Your task to perform on an android device: Open ESPN.com Image 0: 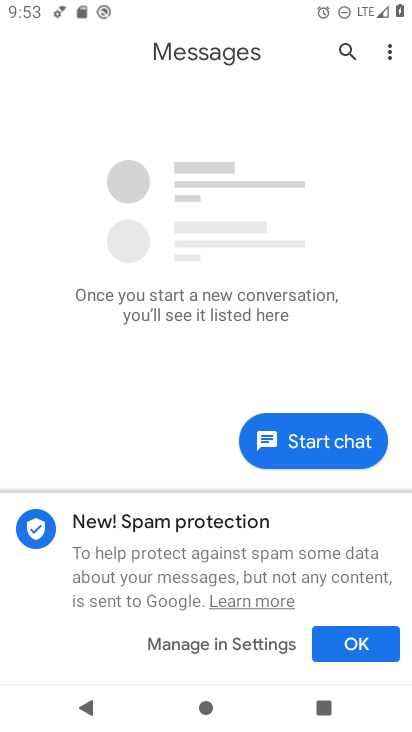
Step 0: press home button
Your task to perform on an android device: Open ESPN.com Image 1: 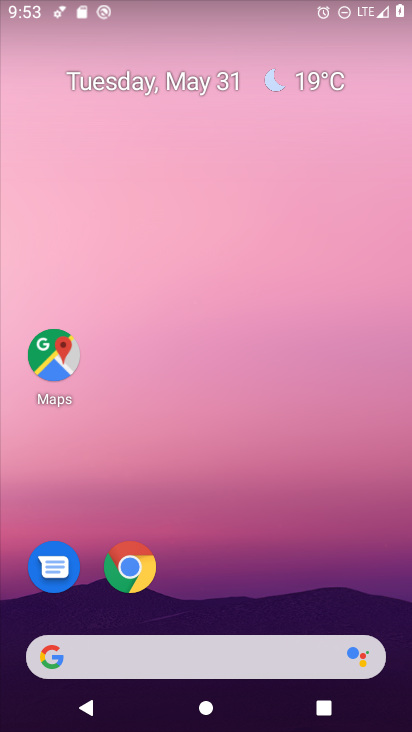
Step 1: click (136, 576)
Your task to perform on an android device: Open ESPN.com Image 2: 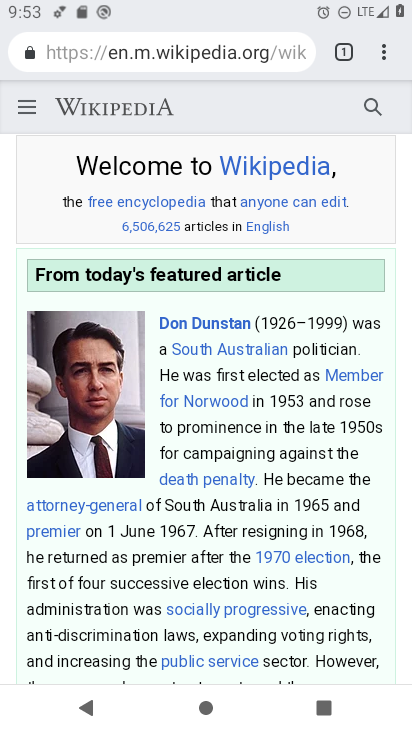
Step 2: click (345, 45)
Your task to perform on an android device: Open ESPN.com Image 3: 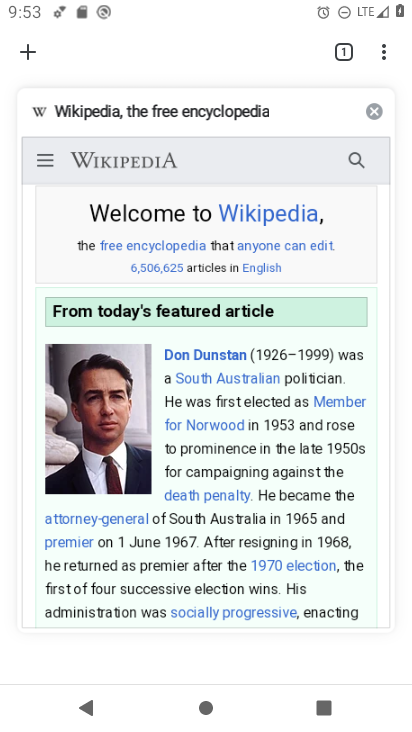
Step 3: click (376, 115)
Your task to perform on an android device: Open ESPN.com Image 4: 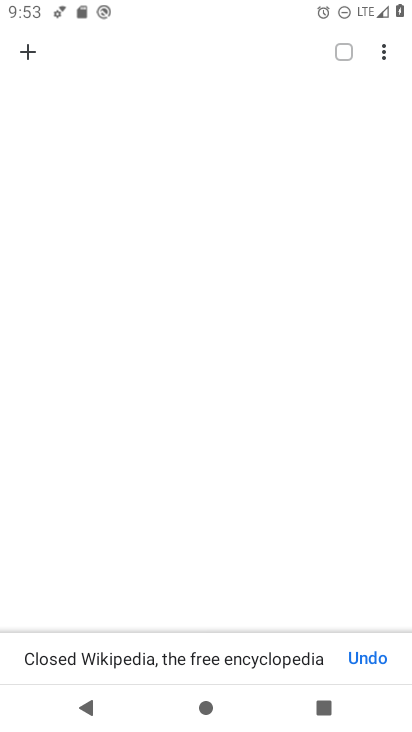
Step 4: click (22, 56)
Your task to perform on an android device: Open ESPN.com Image 5: 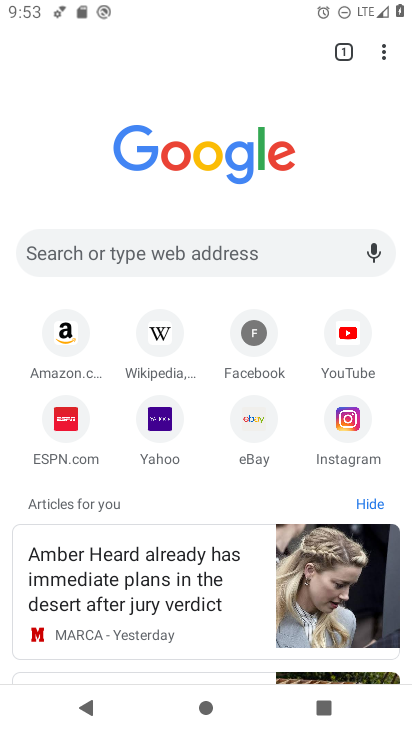
Step 5: click (68, 436)
Your task to perform on an android device: Open ESPN.com Image 6: 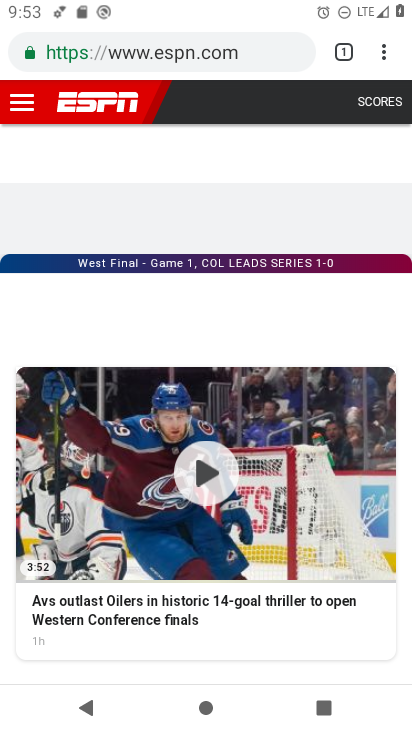
Step 6: task complete